Your task to perform on an android device: Open sound settings Image 0: 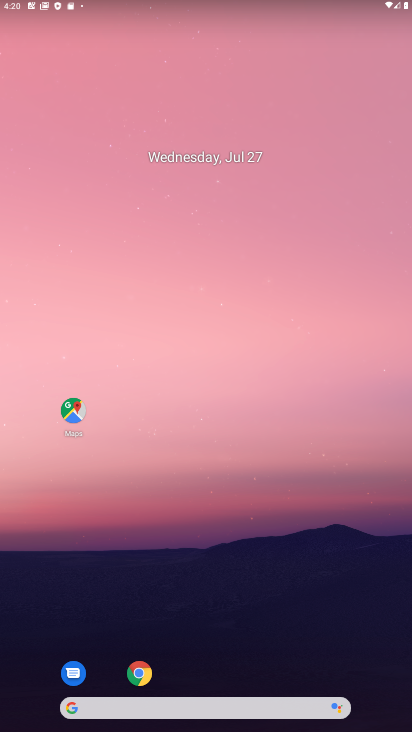
Step 0: drag from (304, 591) to (303, 96)
Your task to perform on an android device: Open sound settings Image 1: 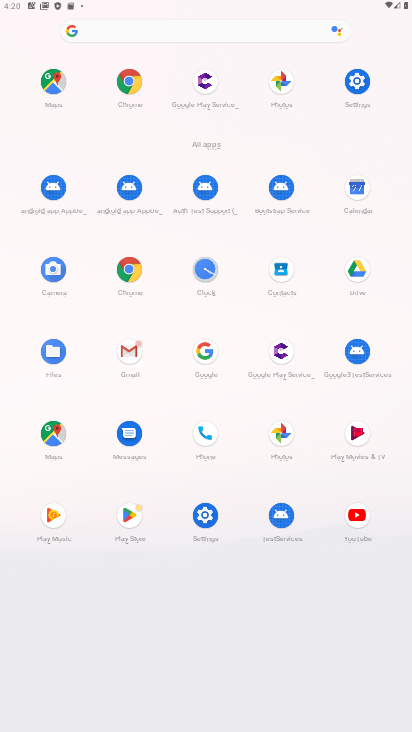
Step 1: click (355, 88)
Your task to perform on an android device: Open sound settings Image 2: 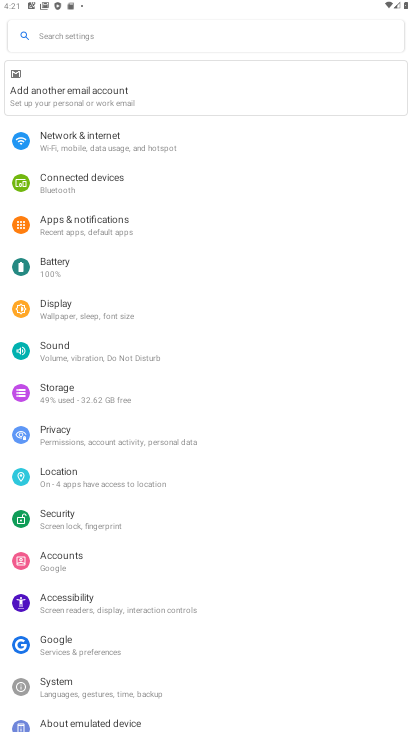
Step 2: click (57, 354)
Your task to perform on an android device: Open sound settings Image 3: 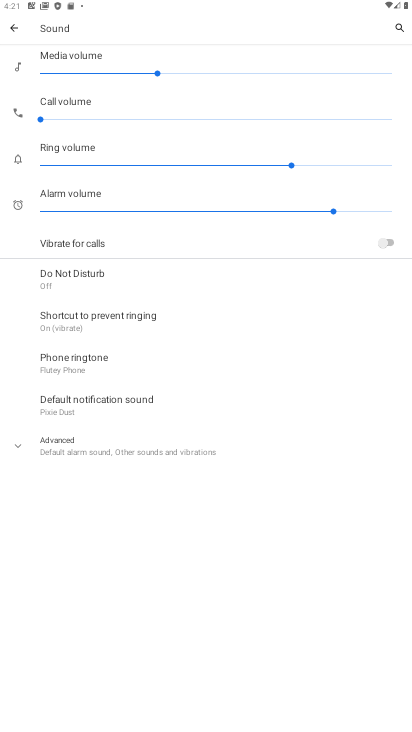
Step 3: task complete